Your task to perform on an android device: What's the weather going to be tomorrow? Image 0: 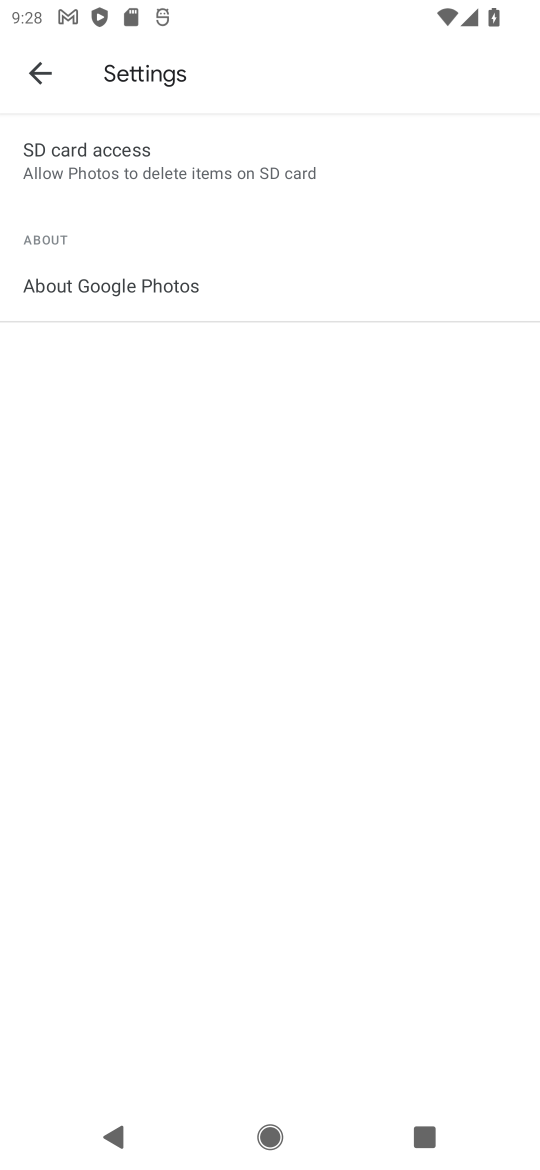
Step 0: press home button
Your task to perform on an android device: What's the weather going to be tomorrow? Image 1: 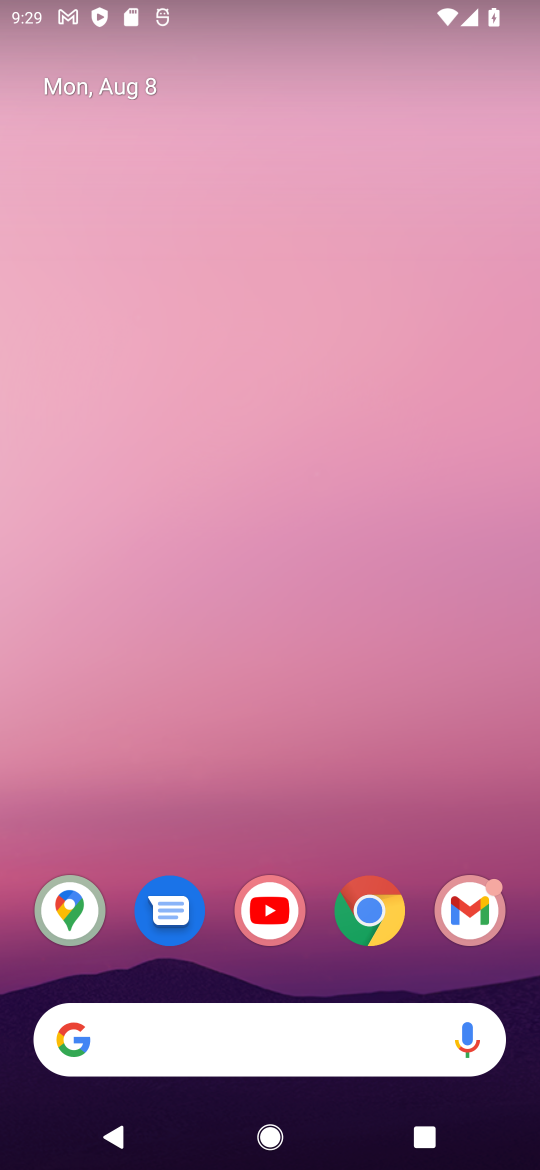
Step 1: click (226, 1047)
Your task to perform on an android device: What's the weather going to be tomorrow? Image 2: 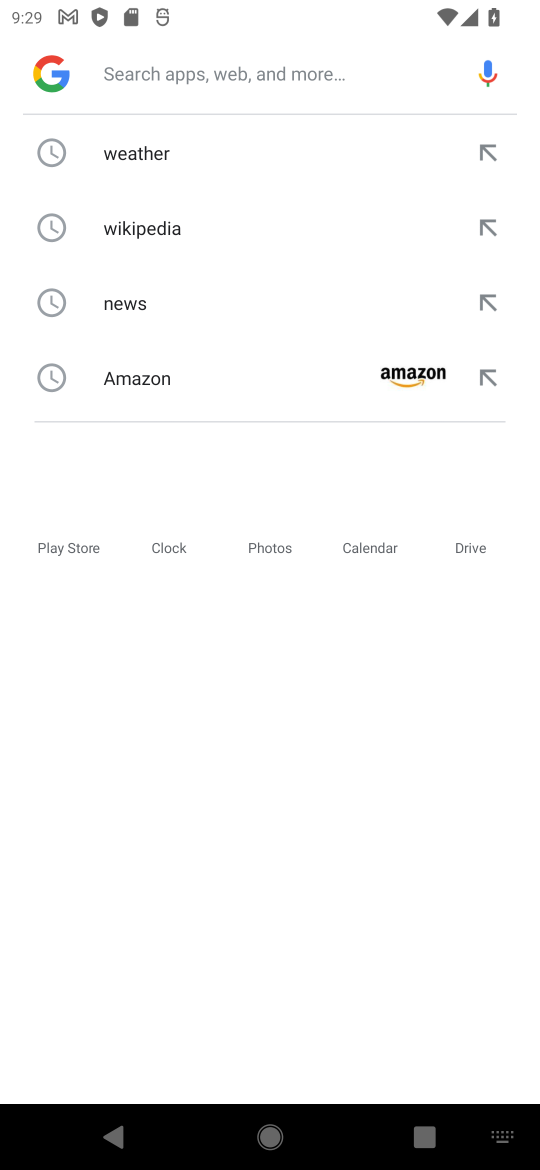
Step 2: click (149, 150)
Your task to perform on an android device: What's the weather going to be tomorrow? Image 3: 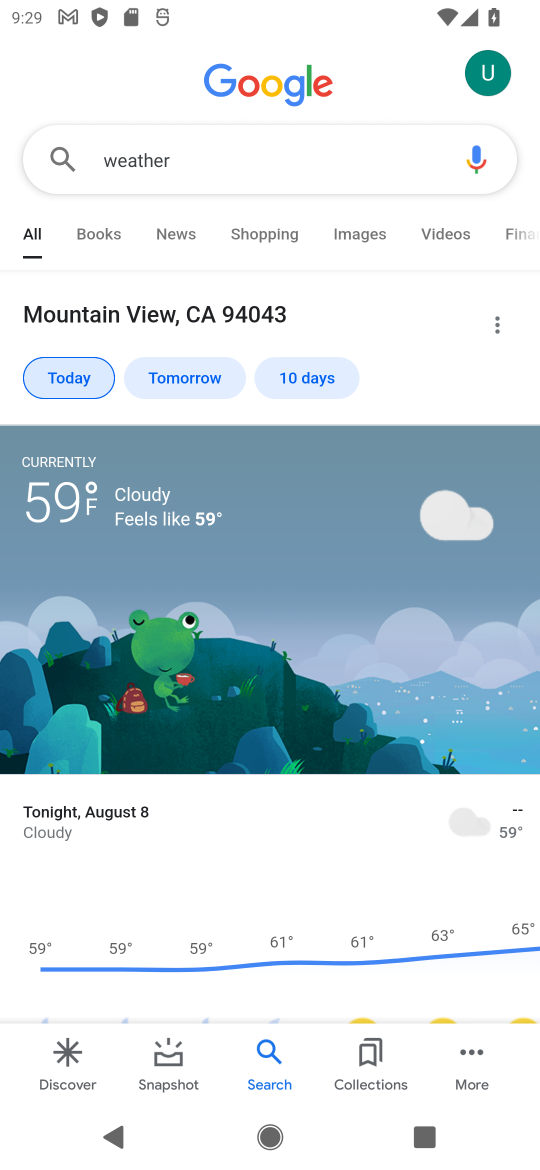
Step 3: click (183, 374)
Your task to perform on an android device: What's the weather going to be tomorrow? Image 4: 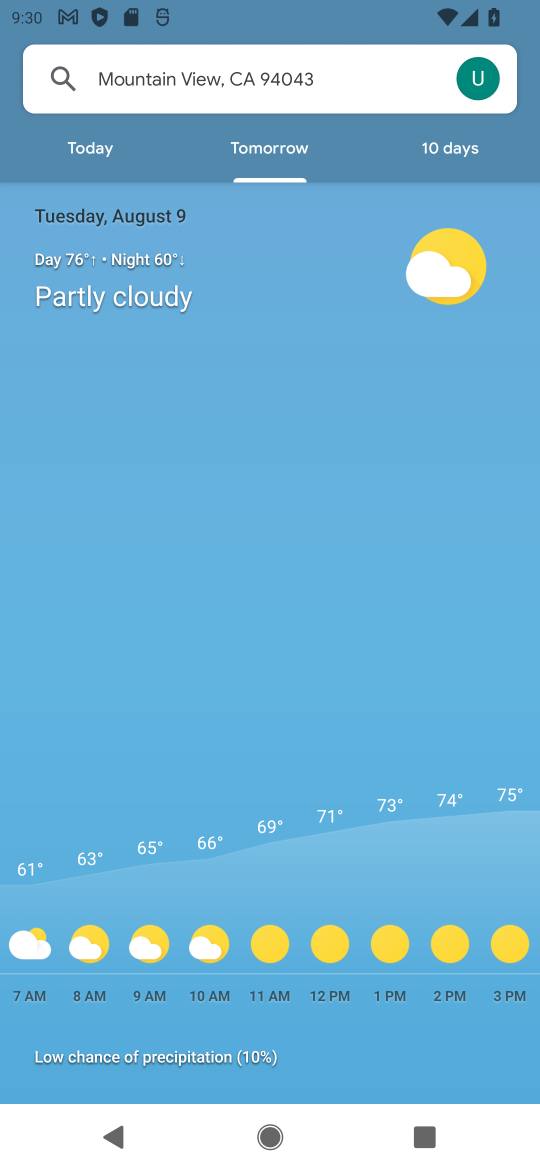
Step 4: task complete